Your task to perform on an android device: Go to Google maps Image 0: 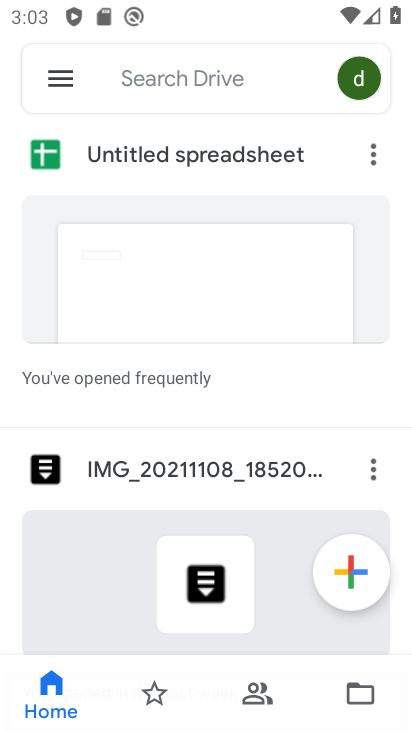
Step 0: press home button
Your task to perform on an android device: Go to Google maps Image 1: 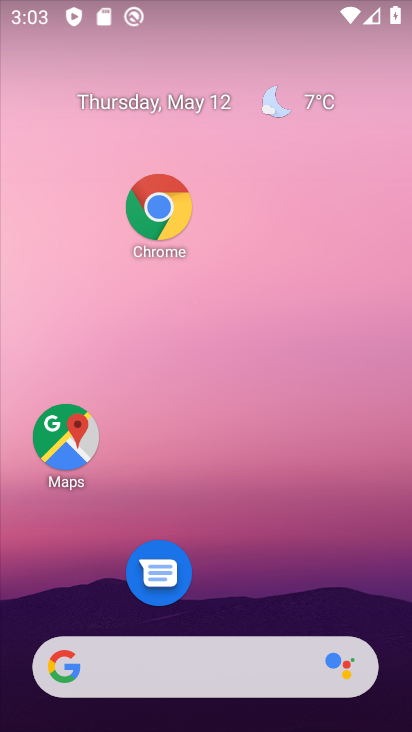
Step 1: drag from (263, 572) to (289, 1)
Your task to perform on an android device: Go to Google maps Image 2: 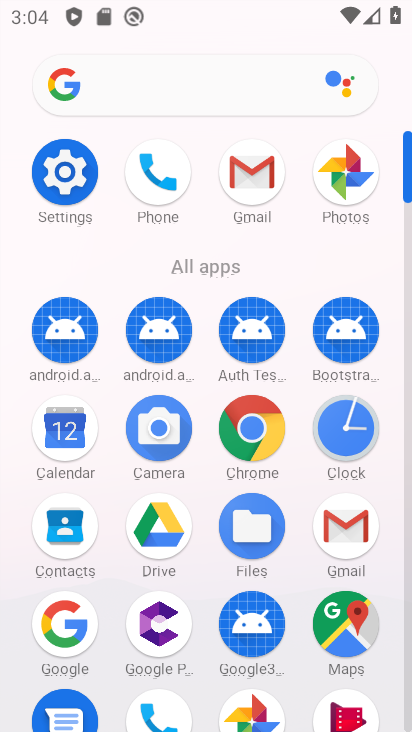
Step 2: click (332, 631)
Your task to perform on an android device: Go to Google maps Image 3: 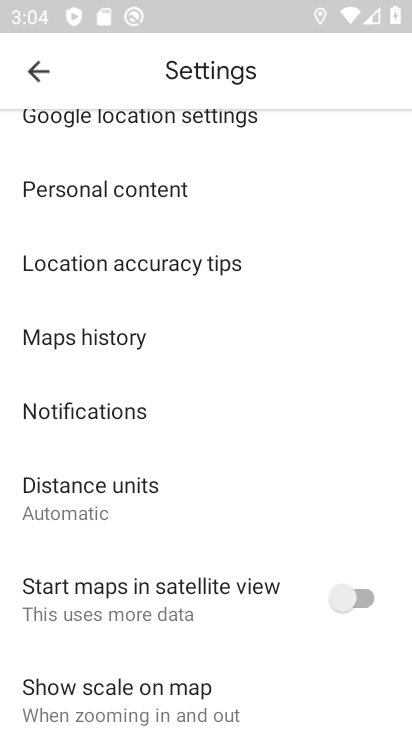
Step 3: click (23, 76)
Your task to perform on an android device: Go to Google maps Image 4: 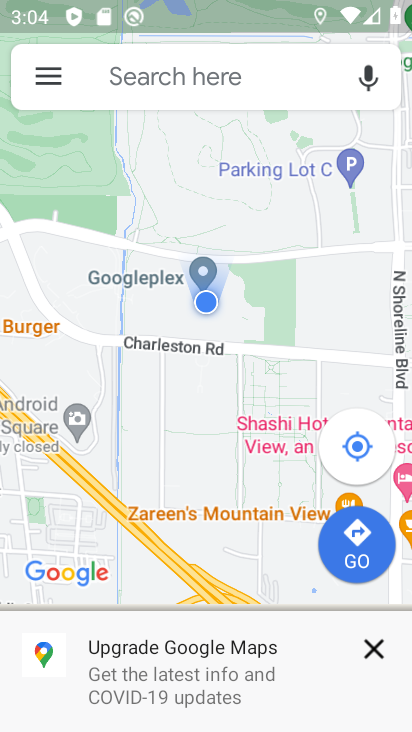
Step 4: task complete